Your task to perform on an android device: turn off location Image 0: 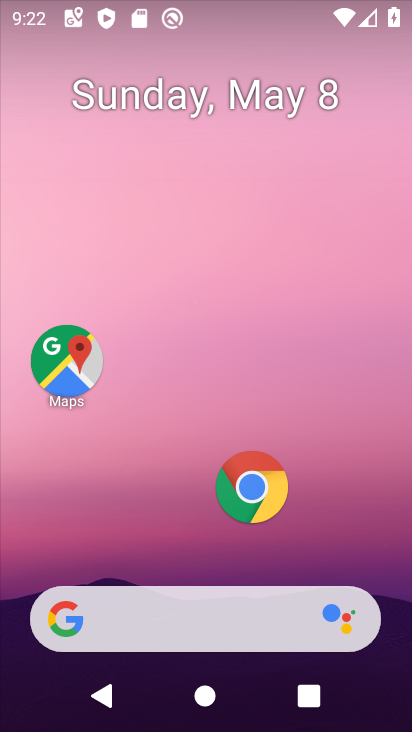
Step 0: drag from (185, 517) to (185, 37)
Your task to perform on an android device: turn off location Image 1: 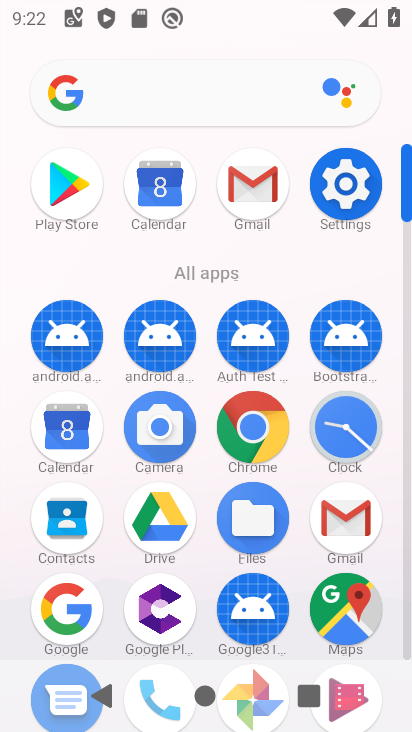
Step 1: click (348, 184)
Your task to perform on an android device: turn off location Image 2: 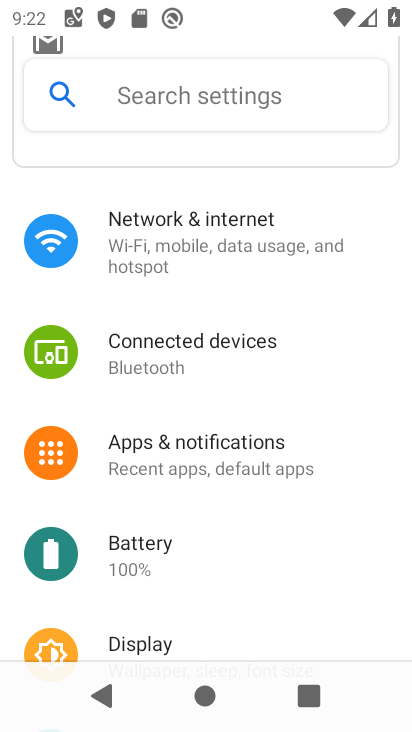
Step 2: drag from (245, 533) to (266, 98)
Your task to perform on an android device: turn off location Image 3: 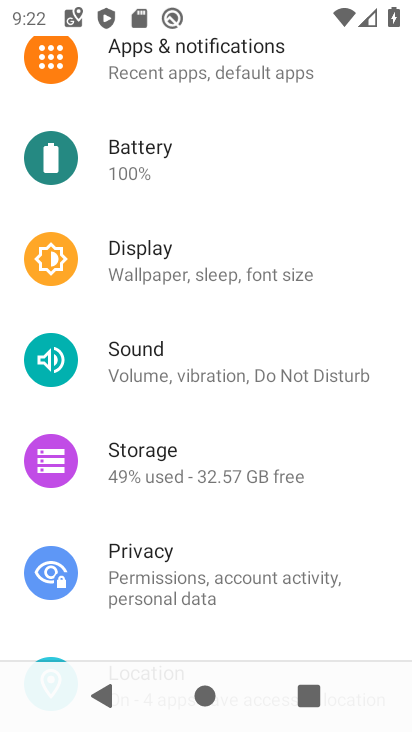
Step 3: drag from (236, 524) to (236, 145)
Your task to perform on an android device: turn off location Image 4: 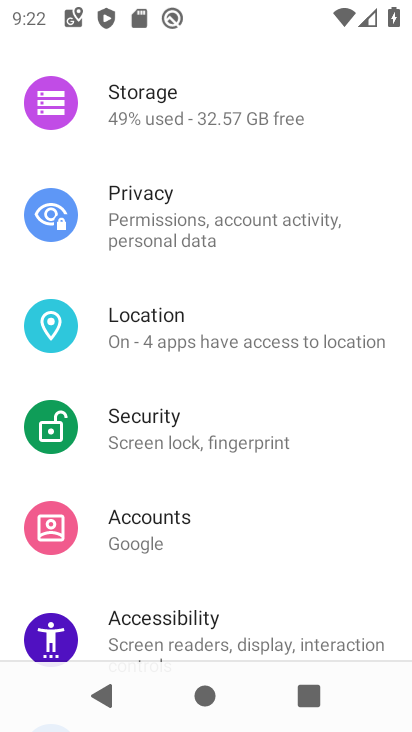
Step 4: click (227, 331)
Your task to perform on an android device: turn off location Image 5: 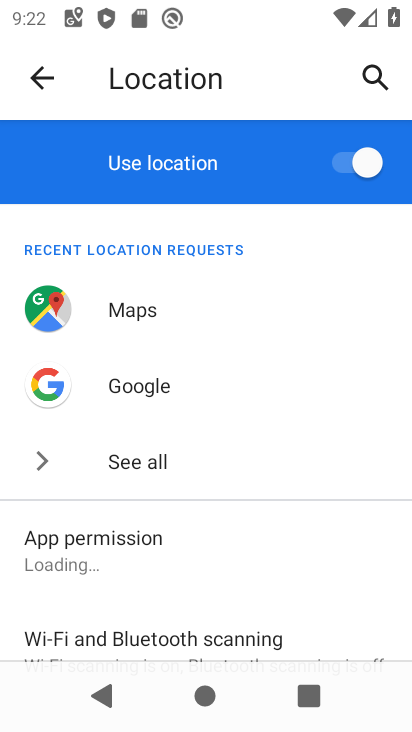
Step 5: click (340, 165)
Your task to perform on an android device: turn off location Image 6: 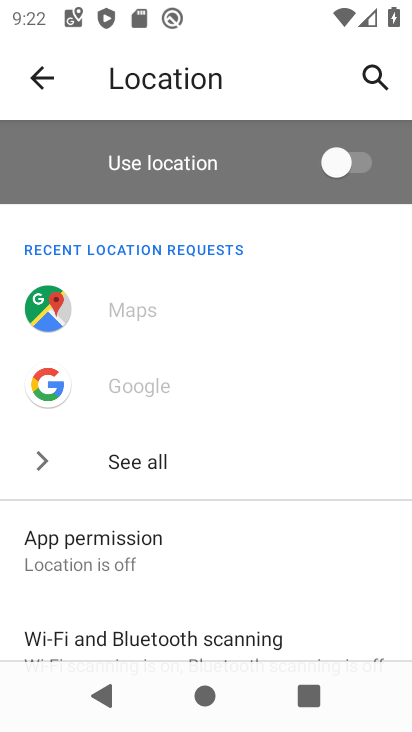
Step 6: task complete